Your task to perform on an android device: change notification settings in the gmail app Image 0: 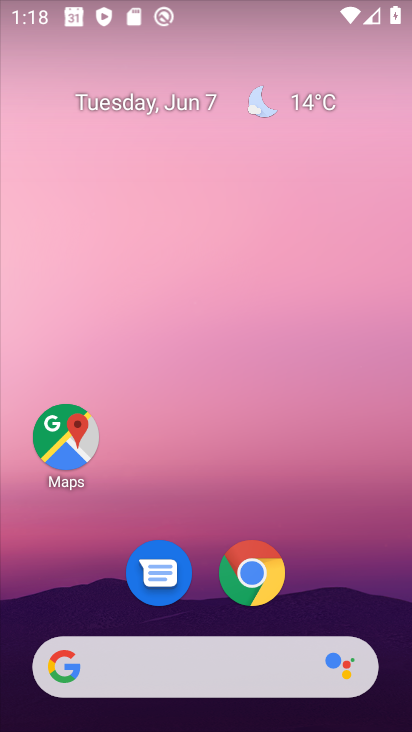
Step 0: drag from (312, 619) to (344, 24)
Your task to perform on an android device: change notification settings in the gmail app Image 1: 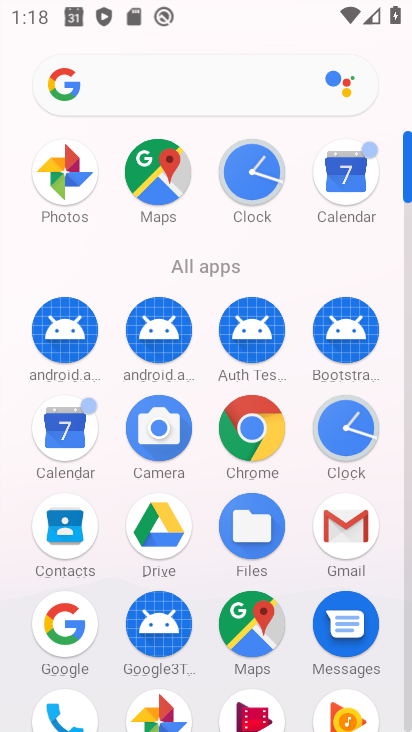
Step 1: click (344, 516)
Your task to perform on an android device: change notification settings in the gmail app Image 2: 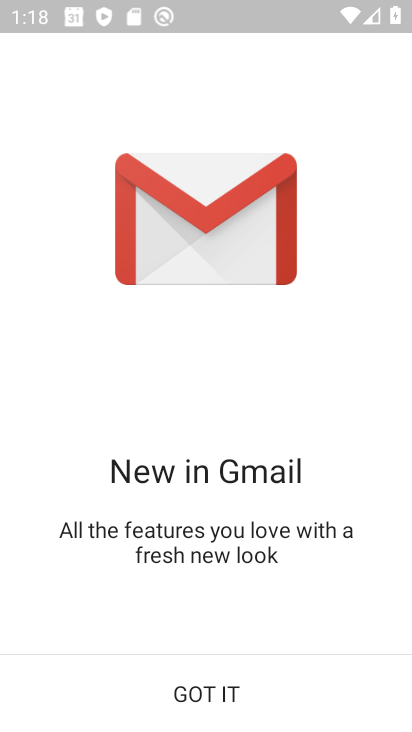
Step 2: click (217, 700)
Your task to perform on an android device: change notification settings in the gmail app Image 3: 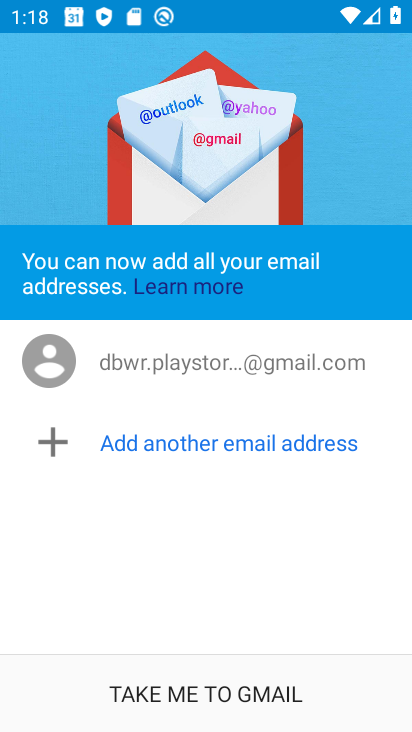
Step 3: click (205, 706)
Your task to perform on an android device: change notification settings in the gmail app Image 4: 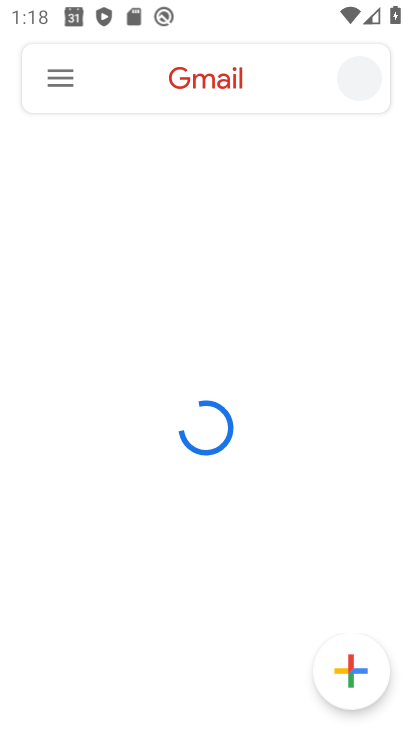
Step 4: click (63, 74)
Your task to perform on an android device: change notification settings in the gmail app Image 5: 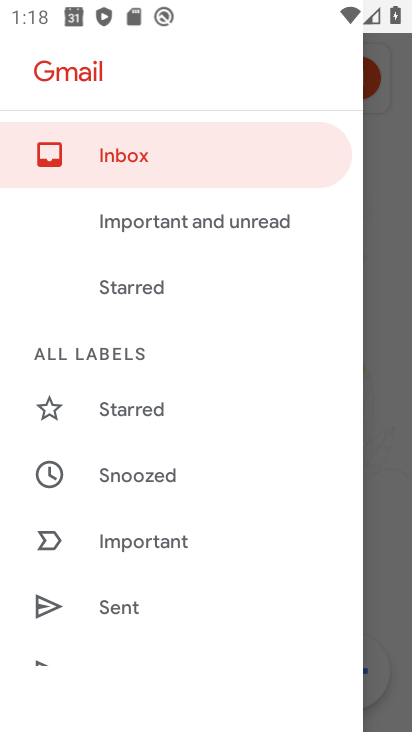
Step 5: drag from (191, 626) to (221, 33)
Your task to perform on an android device: change notification settings in the gmail app Image 6: 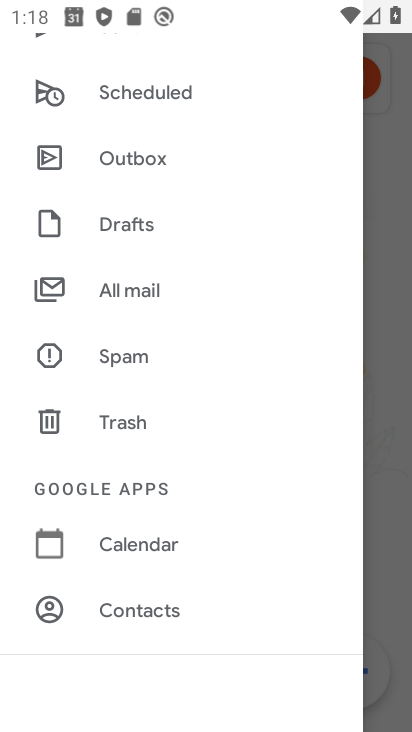
Step 6: drag from (183, 617) to (204, 274)
Your task to perform on an android device: change notification settings in the gmail app Image 7: 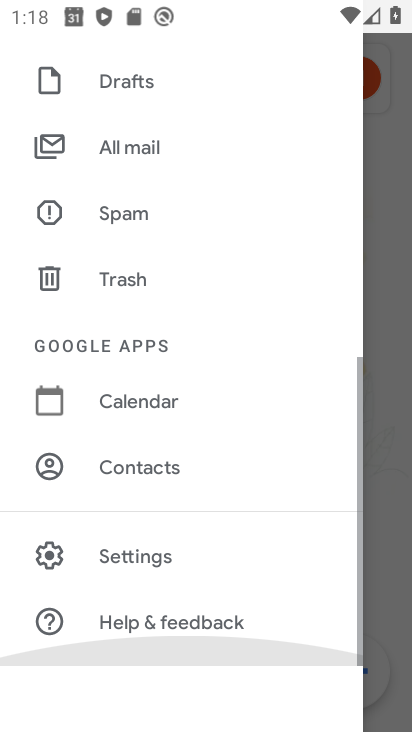
Step 7: drag from (212, 162) to (212, 118)
Your task to perform on an android device: change notification settings in the gmail app Image 8: 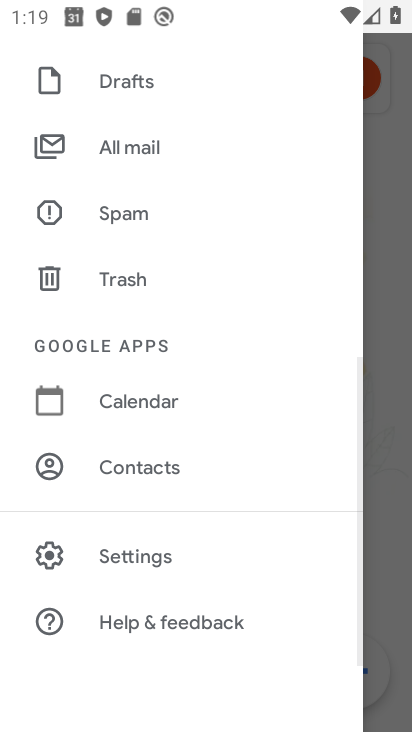
Step 8: click (183, 551)
Your task to perform on an android device: change notification settings in the gmail app Image 9: 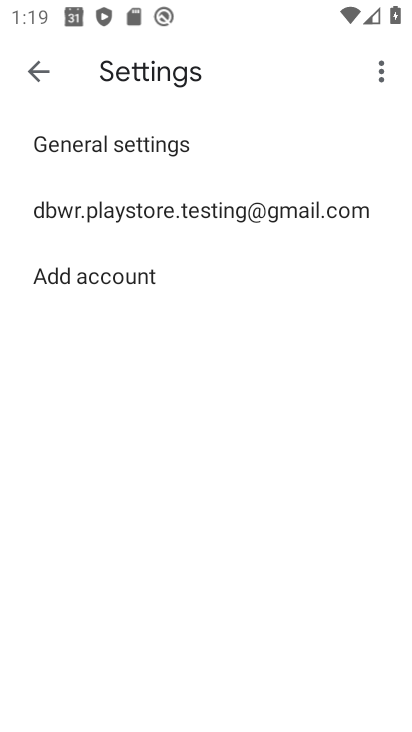
Step 9: click (201, 139)
Your task to perform on an android device: change notification settings in the gmail app Image 10: 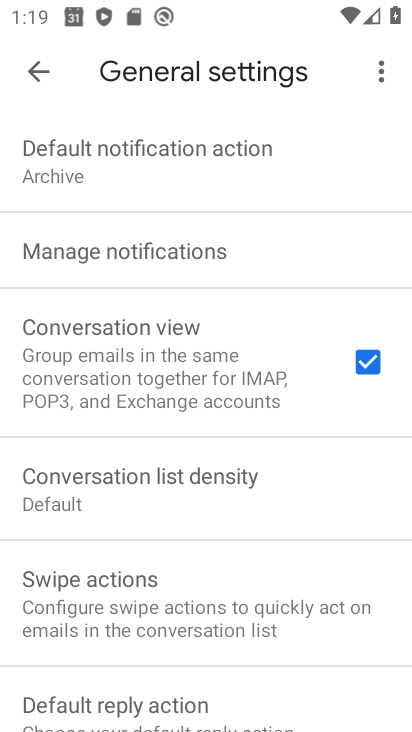
Step 10: click (187, 241)
Your task to perform on an android device: change notification settings in the gmail app Image 11: 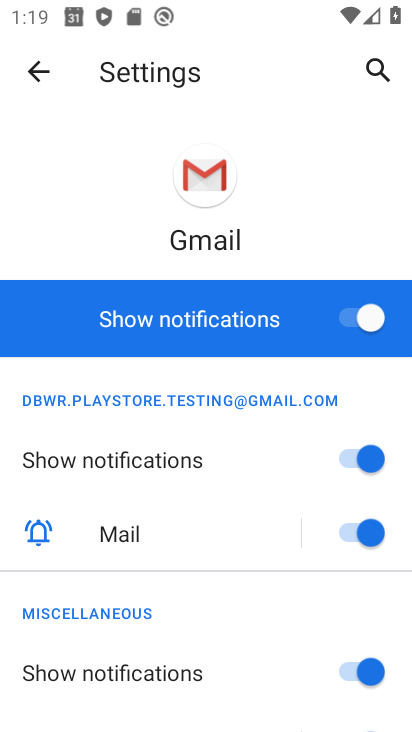
Step 11: click (355, 313)
Your task to perform on an android device: change notification settings in the gmail app Image 12: 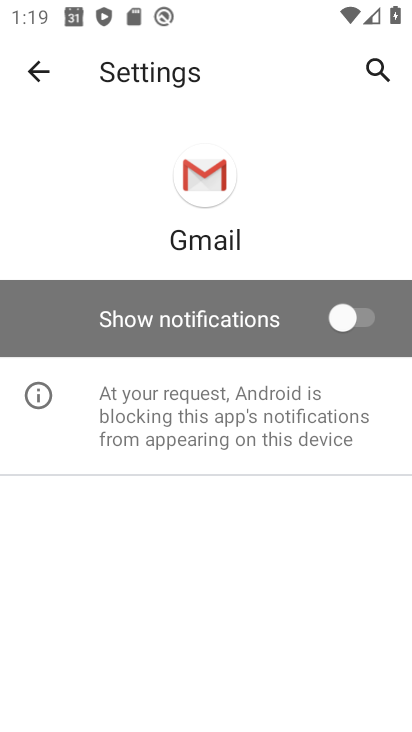
Step 12: task complete